Your task to perform on an android device: Open Youtube and go to "Your channel" Image 0: 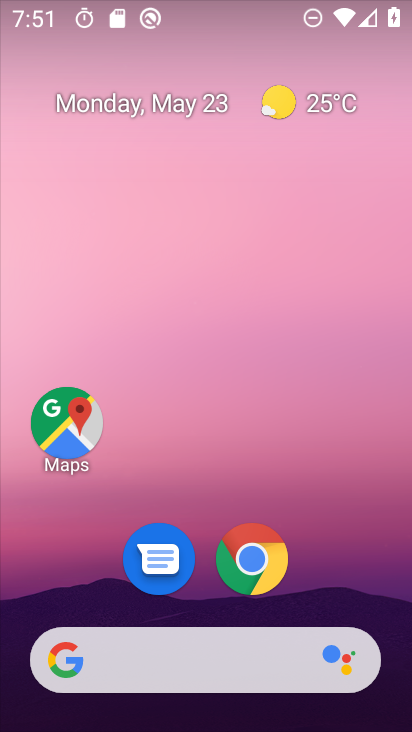
Step 0: drag from (380, 576) to (320, 15)
Your task to perform on an android device: Open Youtube and go to "Your channel" Image 1: 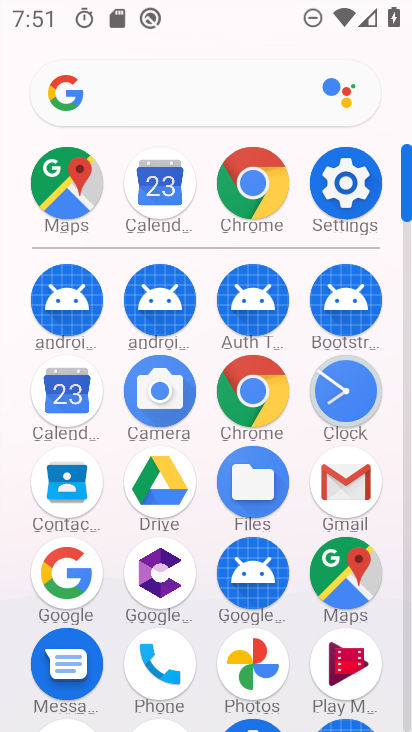
Step 1: drag from (294, 666) to (227, 137)
Your task to perform on an android device: Open Youtube and go to "Your channel" Image 2: 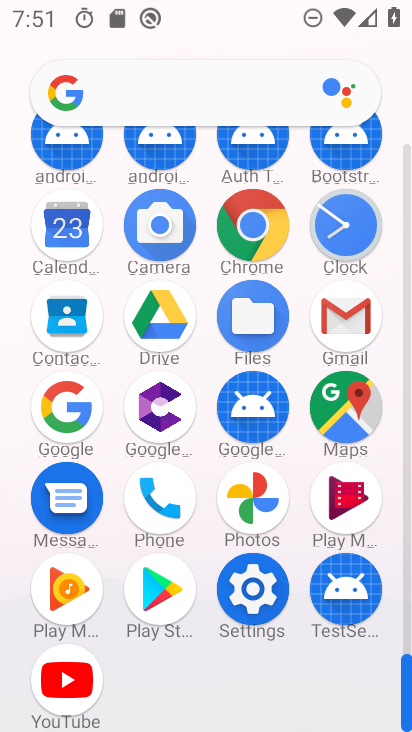
Step 2: click (77, 661)
Your task to perform on an android device: Open Youtube and go to "Your channel" Image 3: 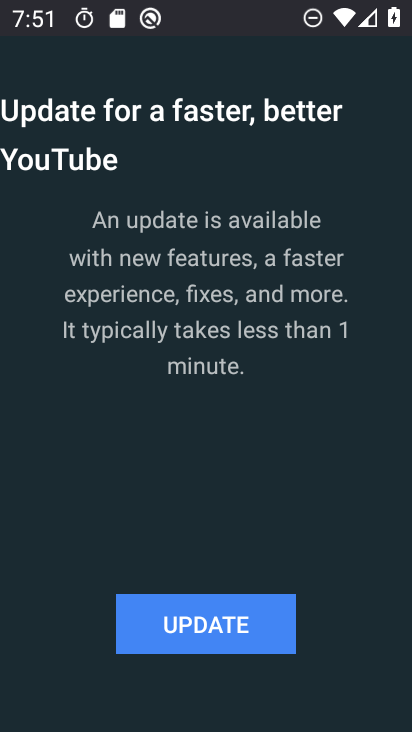
Step 3: click (169, 629)
Your task to perform on an android device: Open Youtube and go to "Your channel" Image 4: 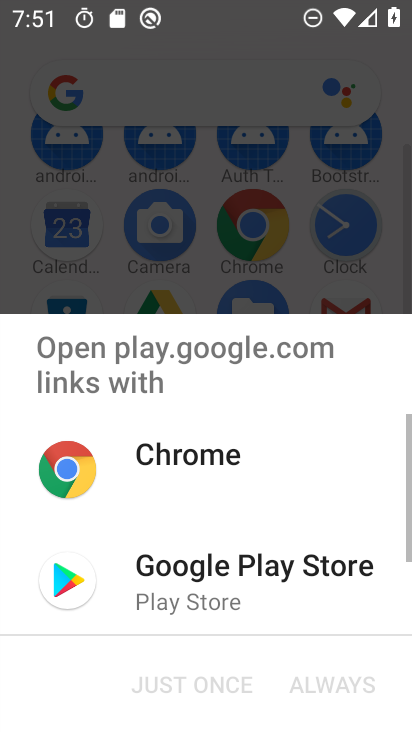
Step 4: click (136, 556)
Your task to perform on an android device: Open Youtube and go to "Your channel" Image 5: 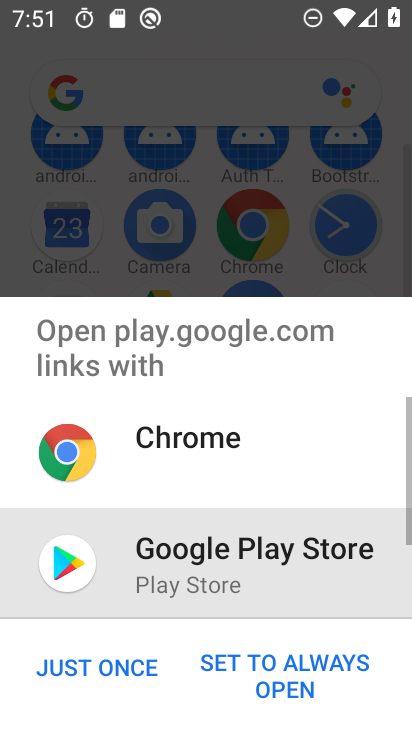
Step 5: click (109, 664)
Your task to perform on an android device: Open Youtube and go to "Your channel" Image 6: 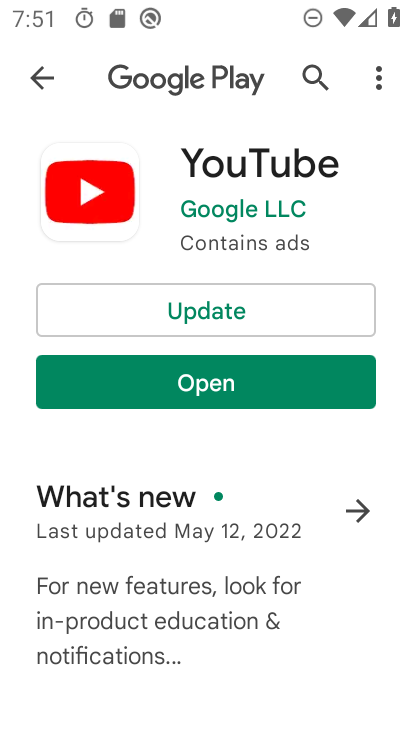
Step 6: click (185, 308)
Your task to perform on an android device: Open Youtube and go to "Your channel" Image 7: 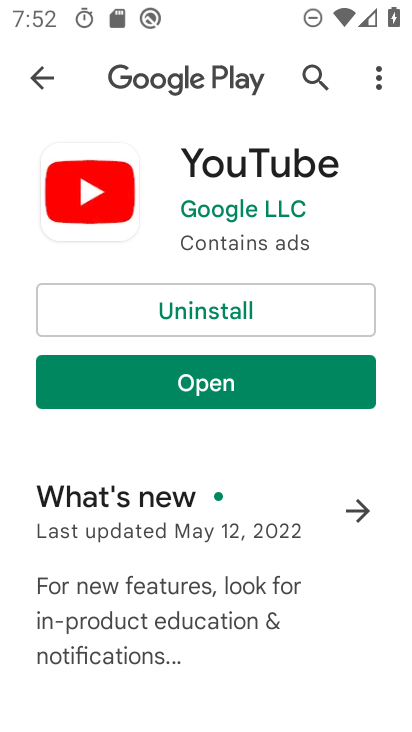
Step 7: click (177, 376)
Your task to perform on an android device: Open Youtube and go to "Your channel" Image 8: 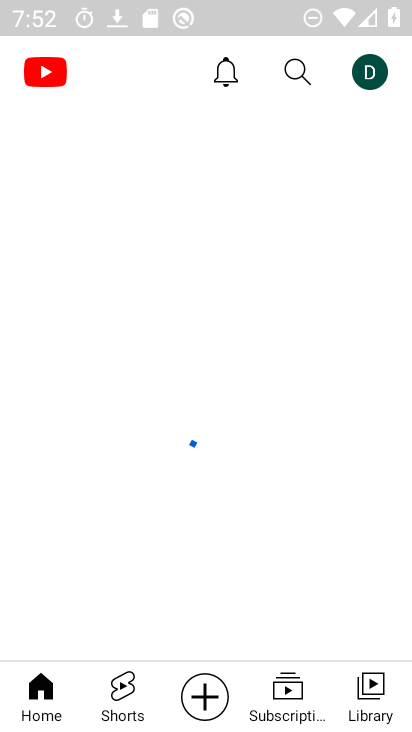
Step 8: click (371, 67)
Your task to perform on an android device: Open Youtube and go to "Your channel" Image 9: 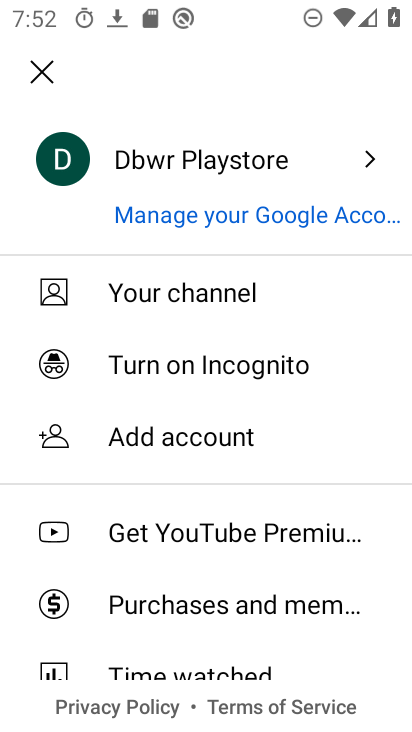
Step 9: click (193, 303)
Your task to perform on an android device: Open Youtube and go to "Your channel" Image 10: 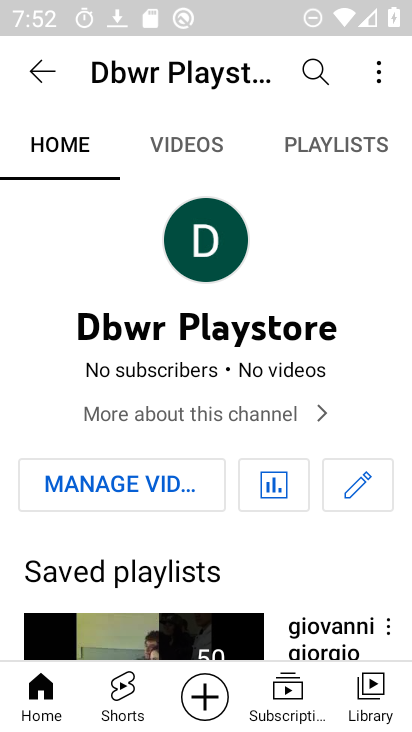
Step 10: task complete